Your task to perform on an android device: Go to display settings Image 0: 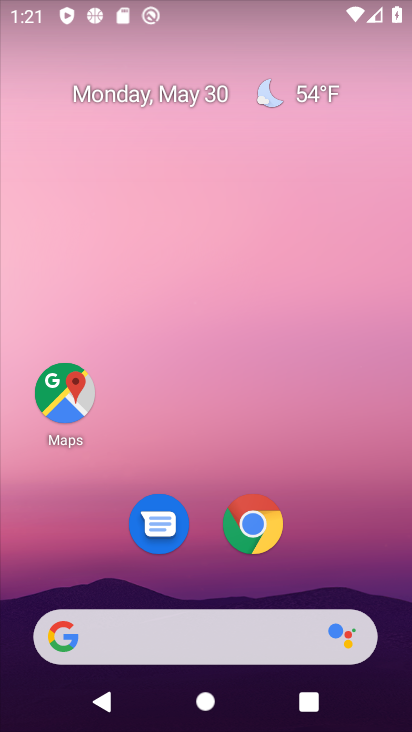
Step 0: drag from (322, 536) to (248, 16)
Your task to perform on an android device: Go to display settings Image 1: 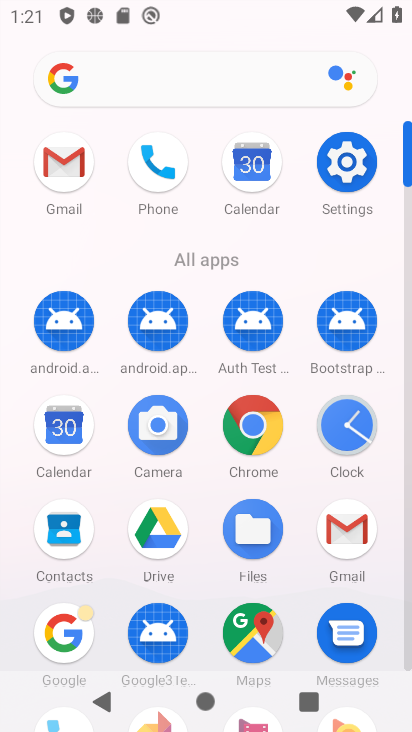
Step 1: click (340, 160)
Your task to perform on an android device: Go to display settings Image 2: 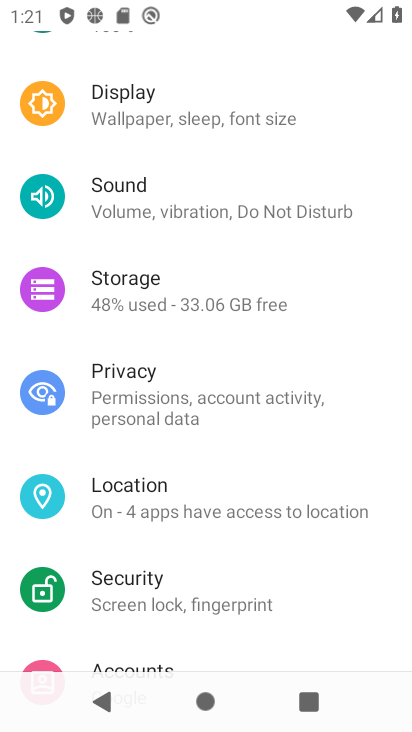
Step 2: click (233, 111)
Your task to perform on an android device: Go to display settings Image 3: 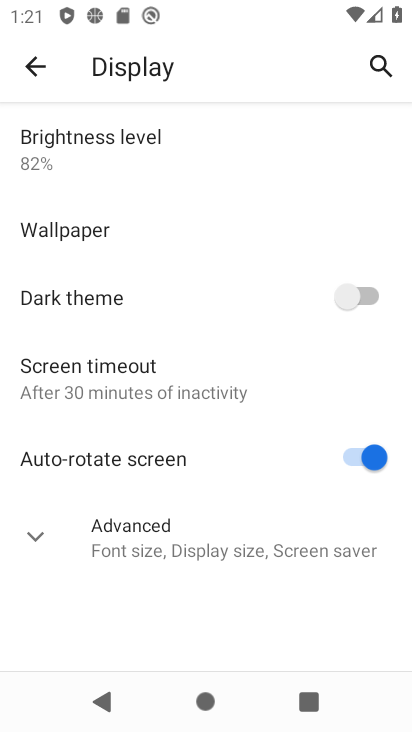
Step 3: task complete